Your task to perform on an android device: Search for pizza restaurants on Maps Image 0: 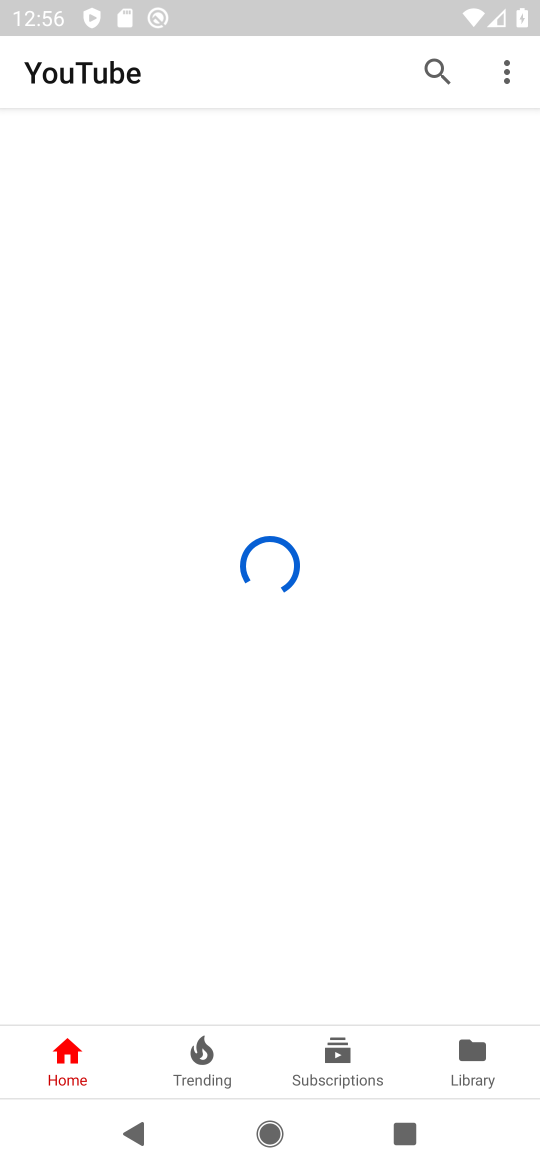
Step 0: press home button
Your task to perform on an android device: Search for pizza restaurants on Maps Image 1: 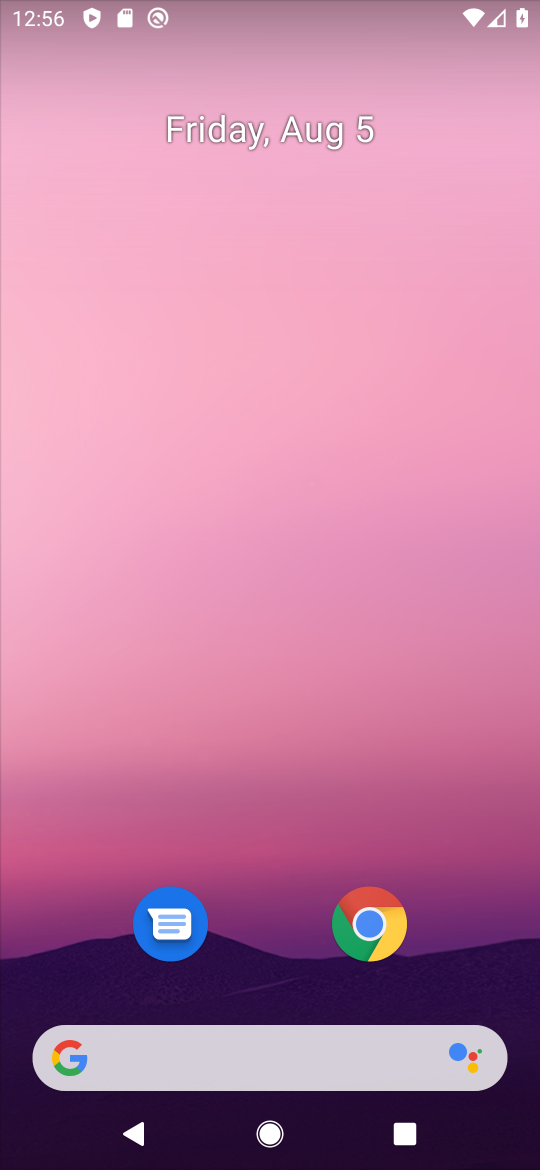
Step 1: drag from (237, 1059) to (393, 80)
Your task to perform on an android device: Search for pizza restaurants on Maps Image 2: 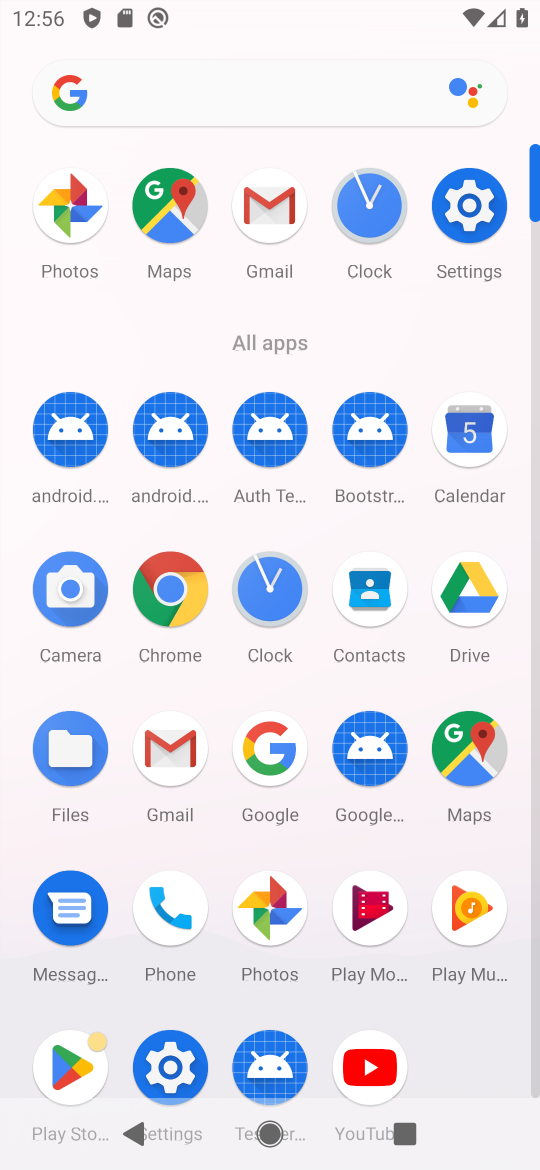
Step 2: click (468, 743)
Your task to perform on an android device: Search for pizza restaurants on Maps Image 3: 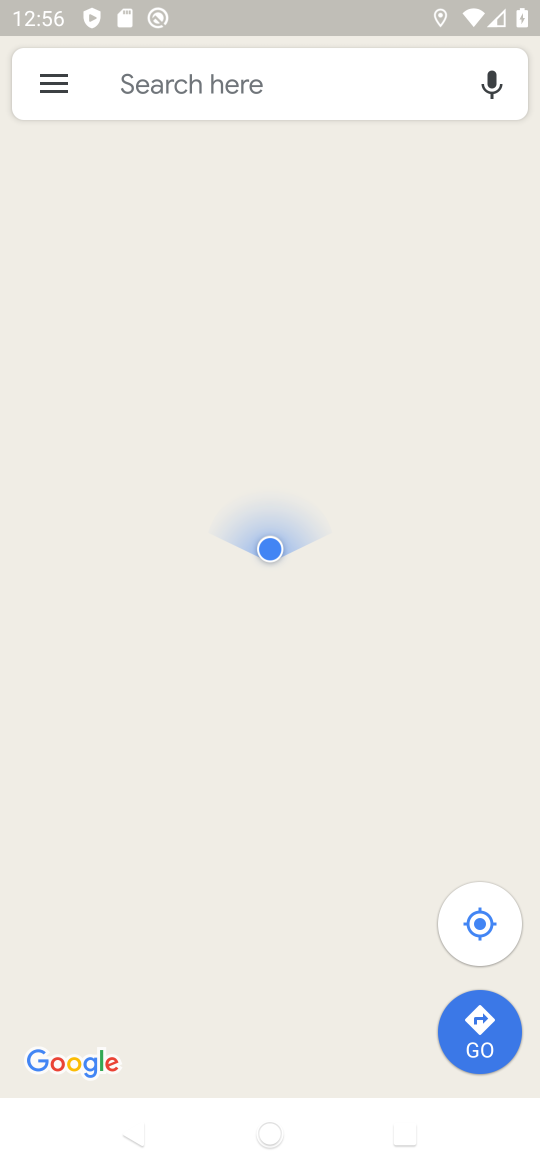
Step 3: click (280, 92)
Your task to perform on an android device: Search for pizza restaurants on Maps Image 4: 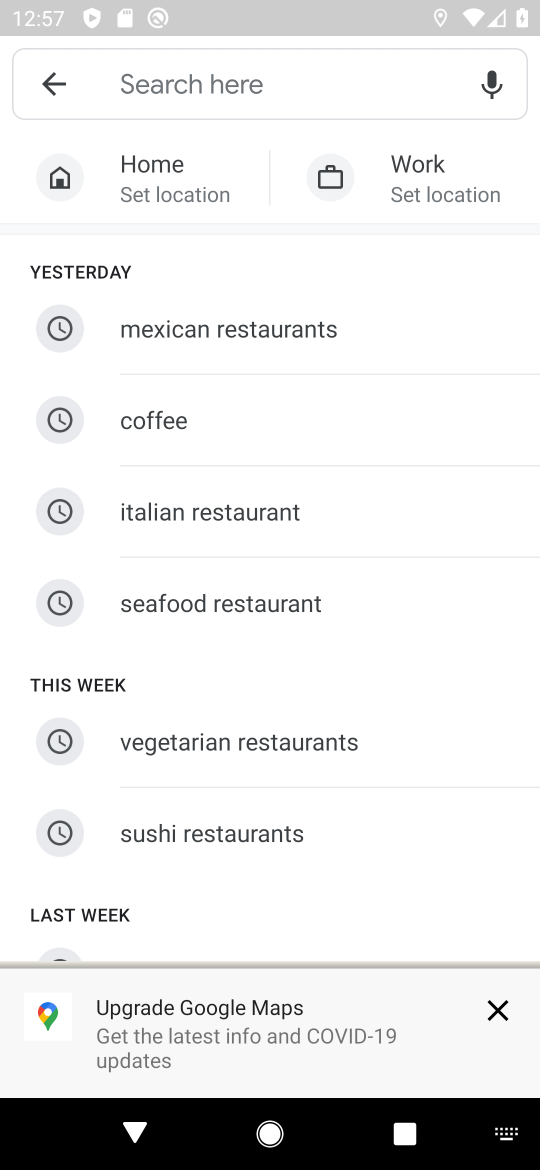
Step 4: type "Pizza restaurants"
Your task to perform on an android device: Search for pizza restaurants on Maps Image 5: 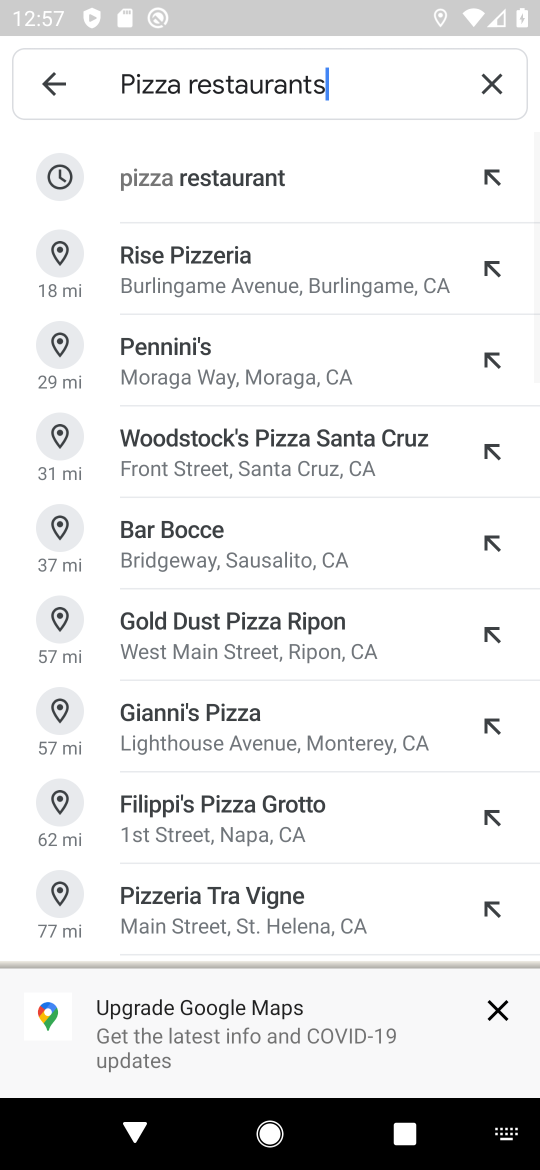
Step 5: click (244, 176)
Your task to perform on an android device: Search for pizza restaurants on Maps Image 6: 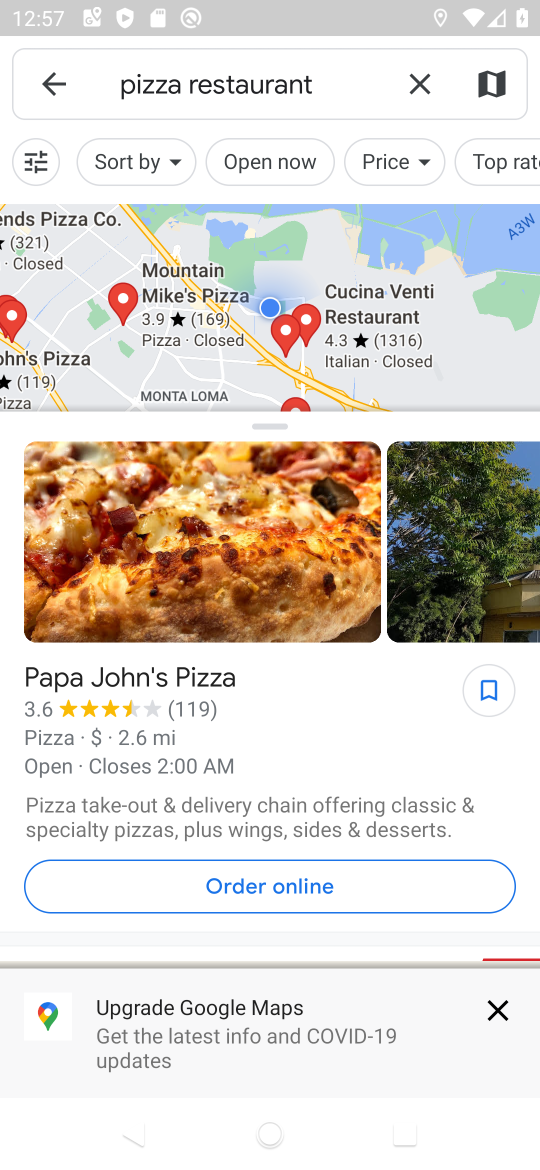
Step 6: task complete